Your task to perform on an android device: allow cookies in the chrome app Image 0: 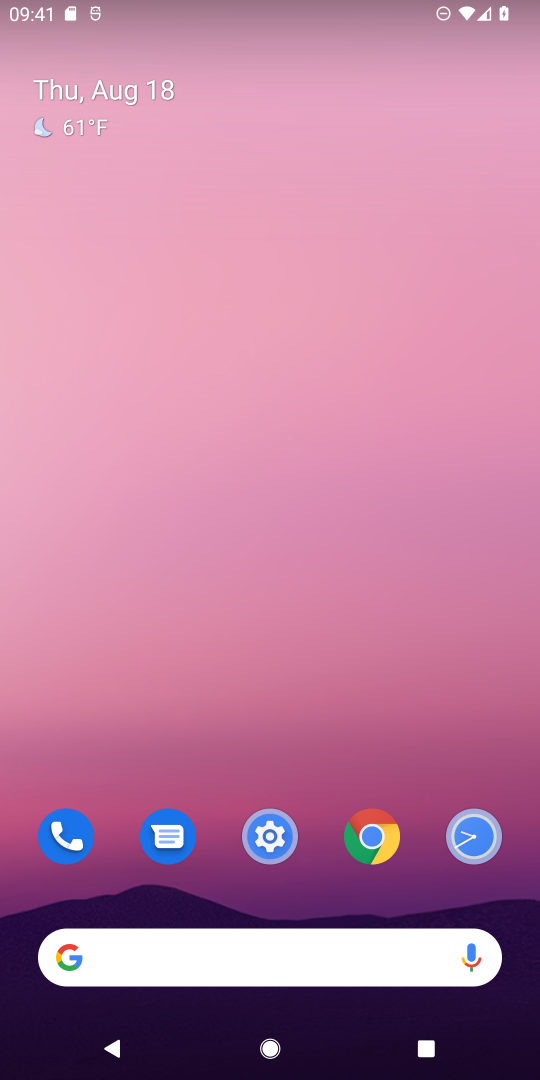
Step 0: drag from (368, 691) to (518, 102)
Your task to perform on an android device: allow cookies in the chrome app Image 1: 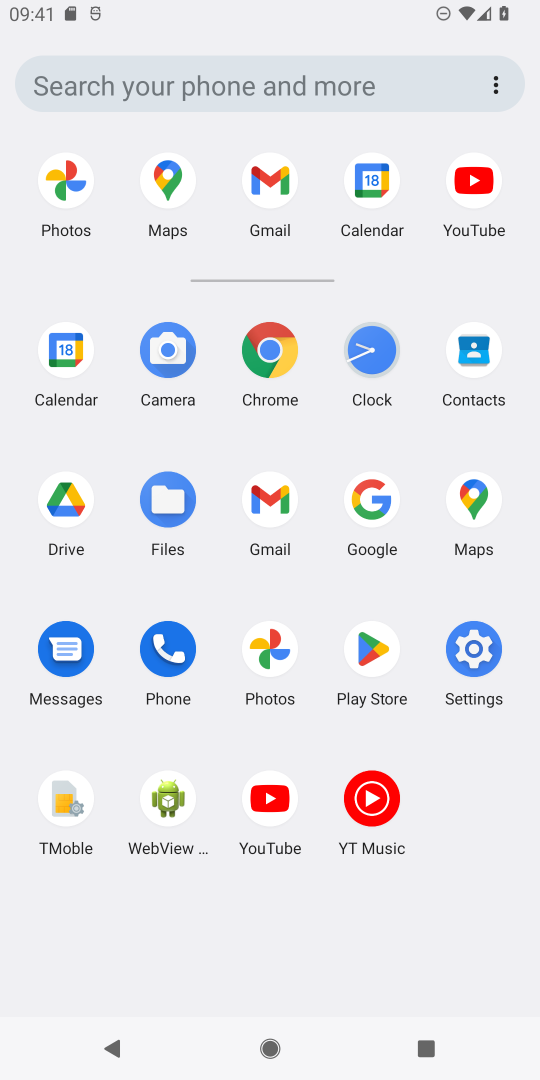
Step 1: click (265, 351)
Your task to perform on an android device: allow cookies in the chrome app Image 2: 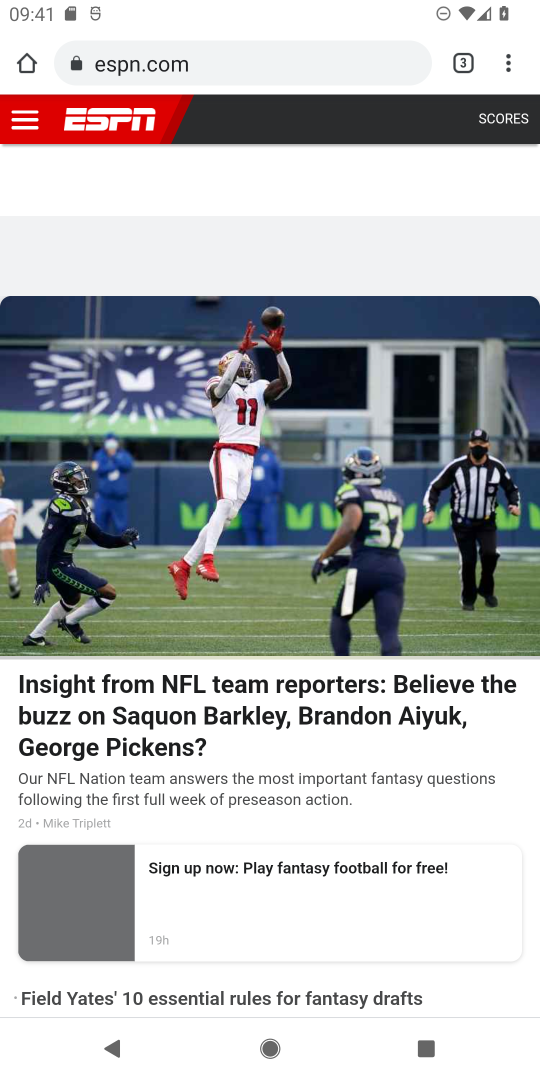
Step 2: drag from (522, 55) to (345, 832)
Your task to perform on an android device: allow cookies in the chrome app Image 3: 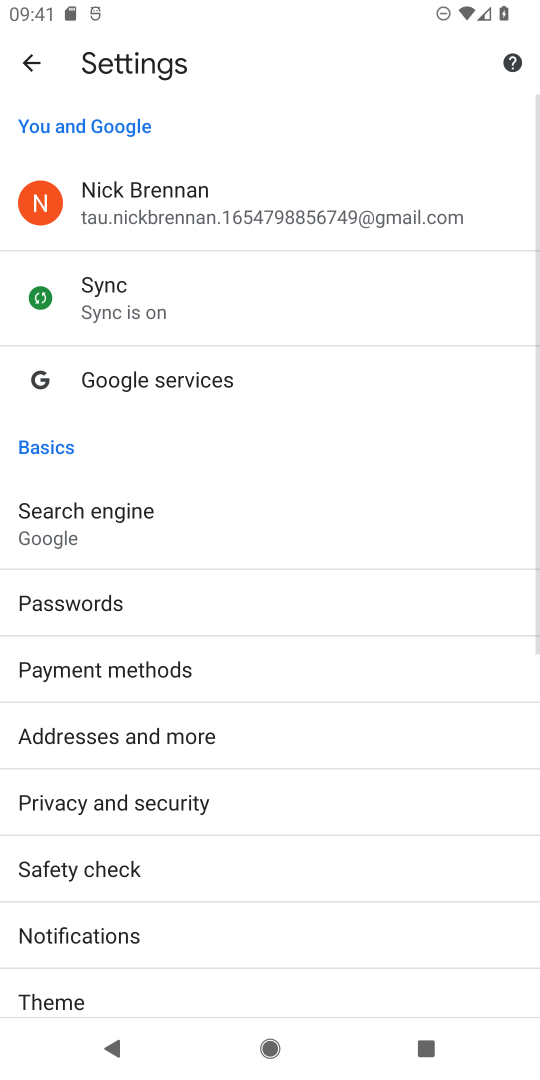
Step 3: drag from (174, 962) to (357, 246)
Your task to perform on an android device: allow cookies in the chrome app Image 4: 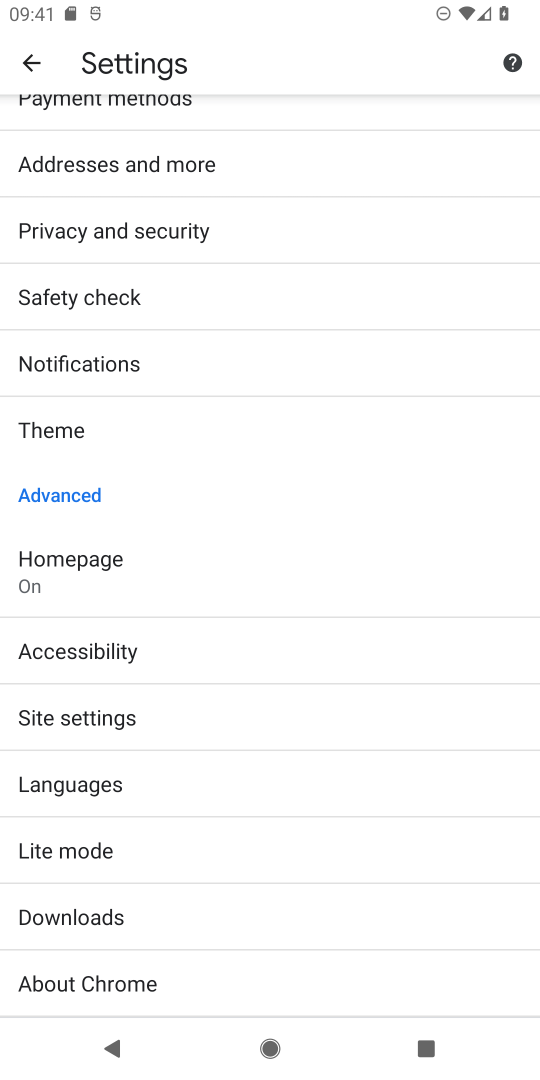
Step 4: click (124, 712)
Your task to perform on an android device: allow cookies in the chrome app Image 5: 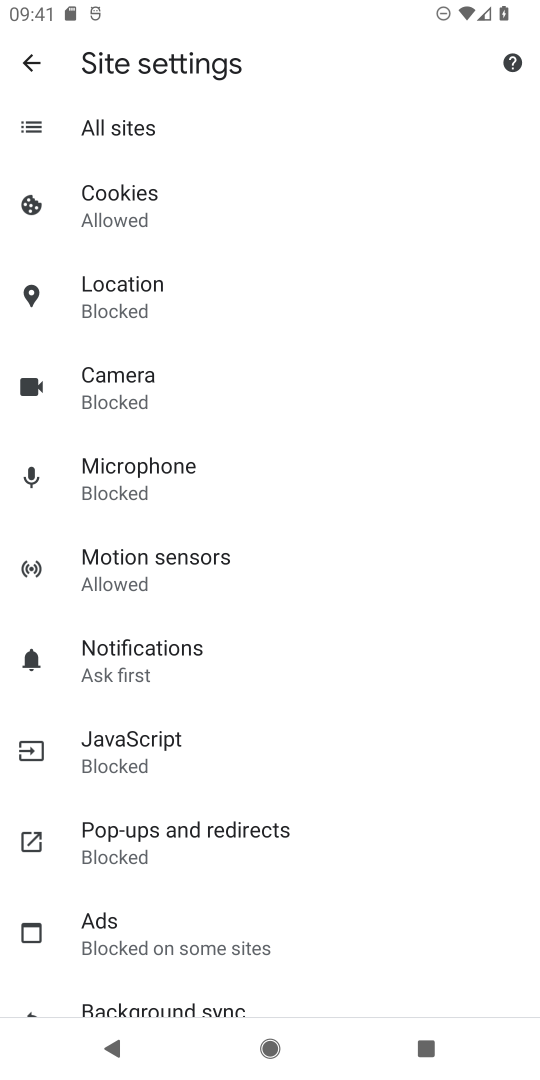
Step 5: click (123, 181)
Your task to perform on an android device: allow cookies in the chrome app Image 6: 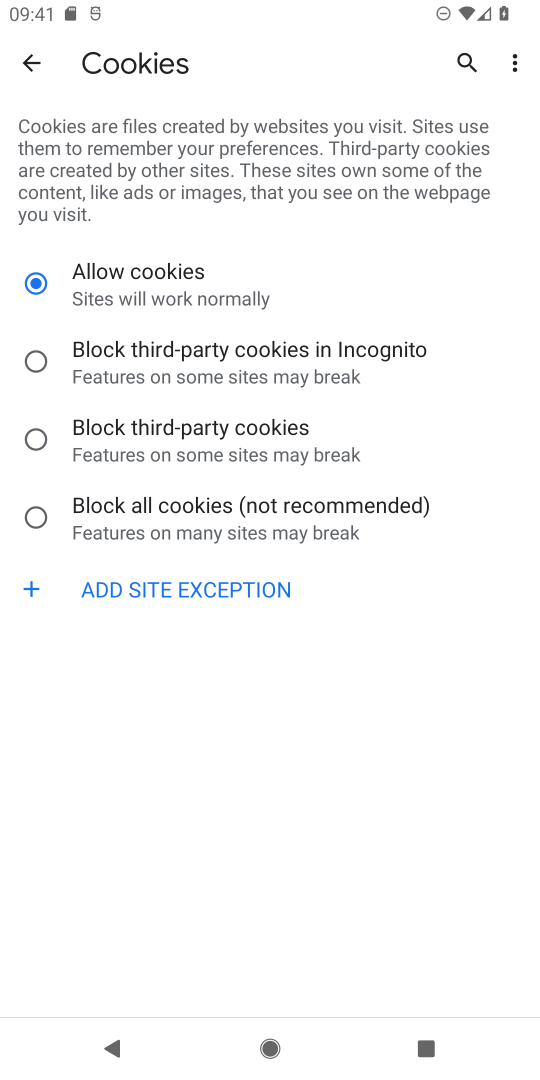
Step 6: task complete